Your task to perform on an android device: Go to network settings Image 0: 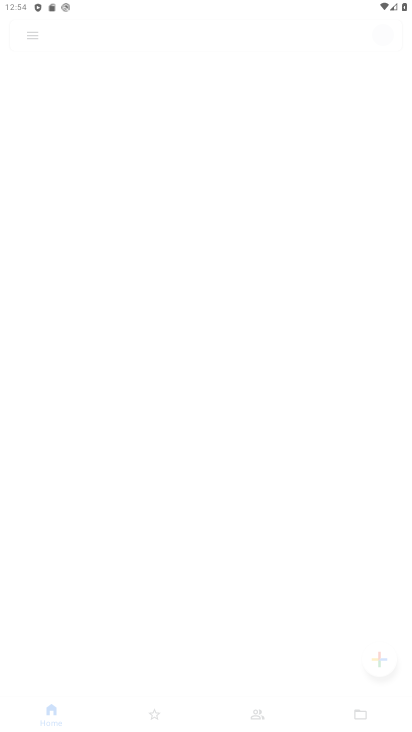
Step 0: drag from (27, 699) to (191, 156)
Your task to perform on an android device: Go to network settings Image 1: 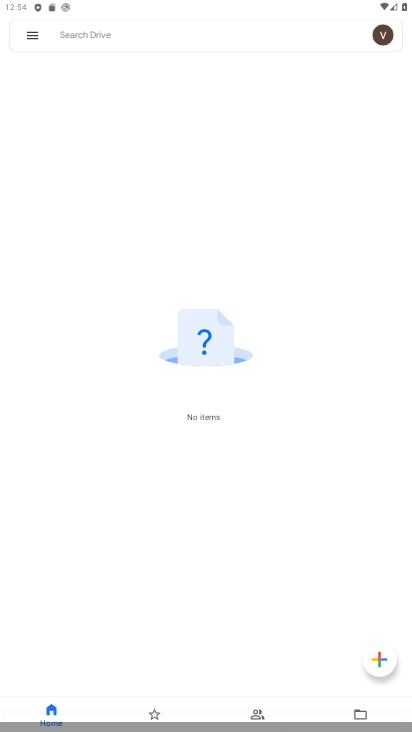
Step 1: press home button
Your task to perform on an android device: Go to network settings Image 2: 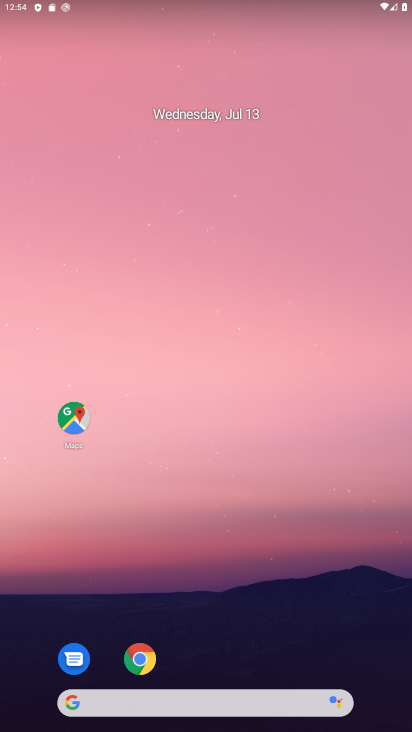
Step 2: drag from (26, 691) to (273, 5)
Your task to perform on an android device: Go to network settings Image 3: 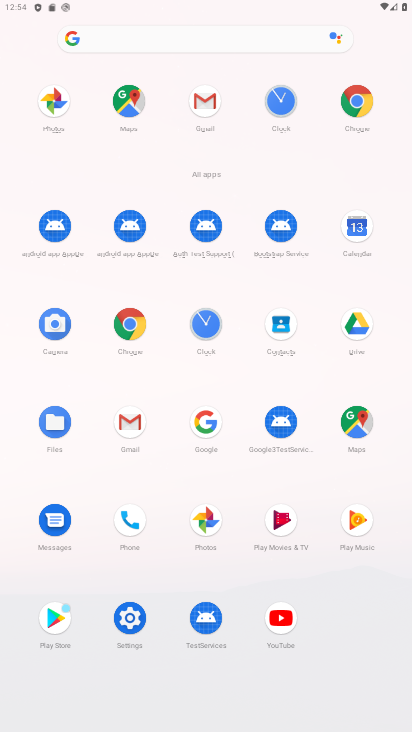
Step 3: click (131, 609)
Your task to perform on an android device: Go to network settings Image 4: 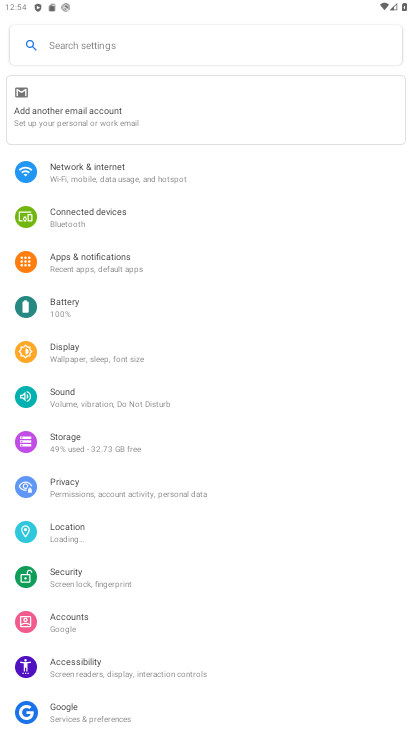
Step 4: click (121, 175)
Your task to perform on an android device: Go to network settings Image 5: 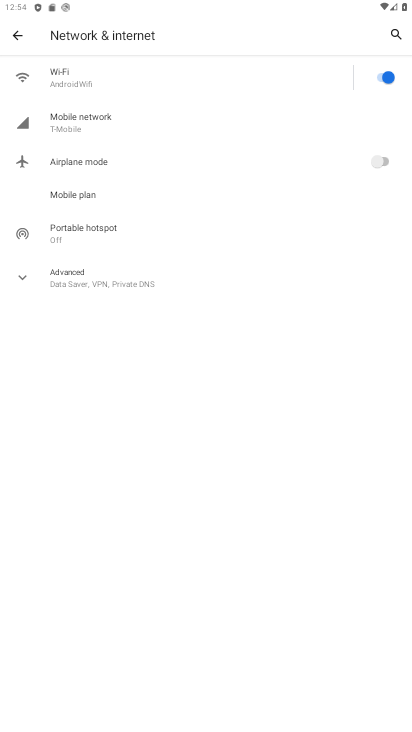
Step 5: click (120, 128)
Your task to perform on an android device: Go to network settings Image 6: 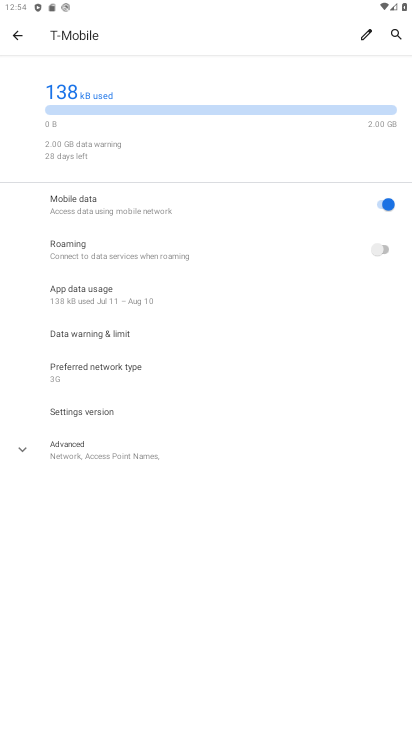
Step 6: task complete